Your task to perform on an android device: turn on javascript in the chrome app Image 0: 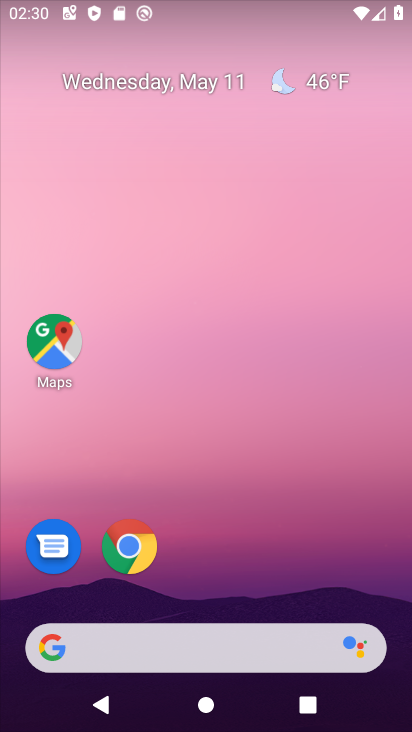
Step 0: drag from (199, 589) to (224, 68)
Your task to perform on an android device: turn on javascript in the chrome app Image 1: 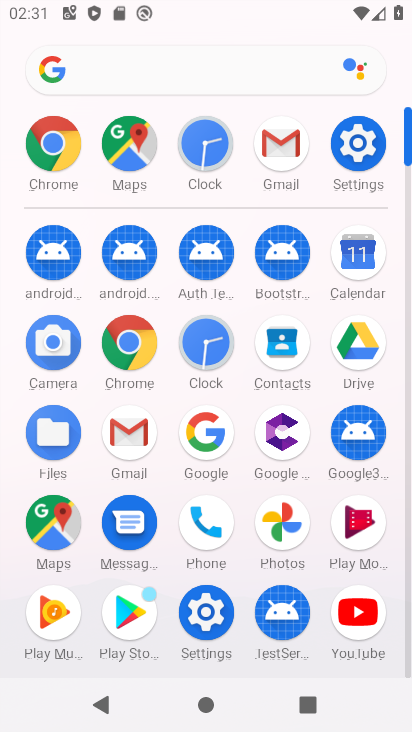
Step 1: click (354, 131)
Your task to perform on an android device: turn on javascript in the chrome app Image 2: 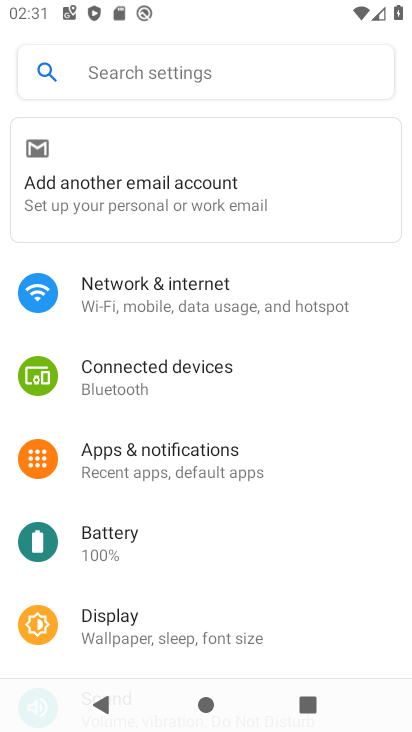
Step 2: drag from (217, 575) to (302, 140)
Your task to perform on an android device: turn on javascript in the chrome app Image 3: 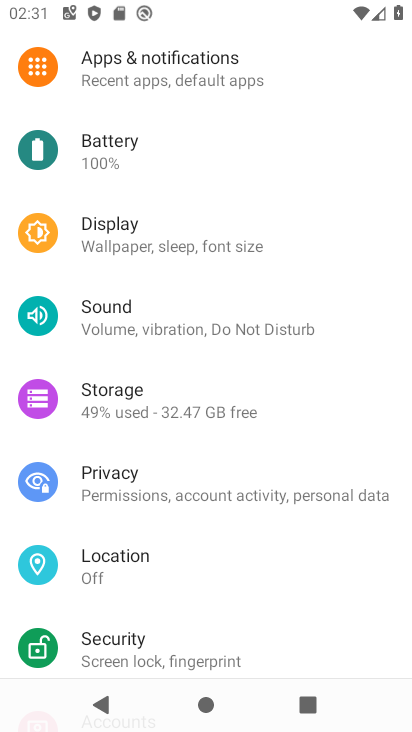
Step 3: press back button
Your task to perform on an android device: turn on javascript in the chrome app Image 4: 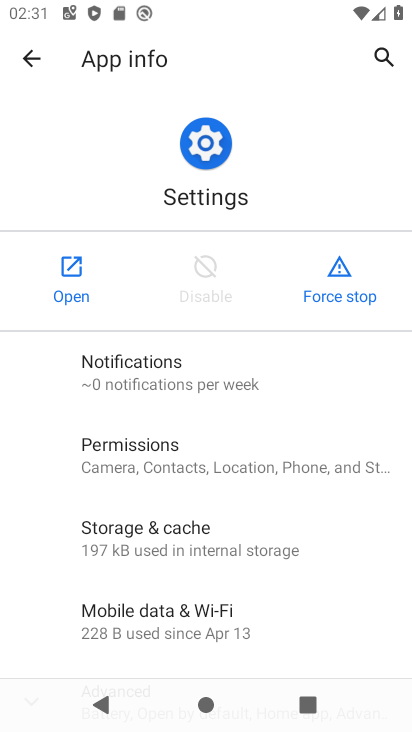
Step 4: press home button
Your task to perform on an android device: turn on javascript in the chrome app Image 5: 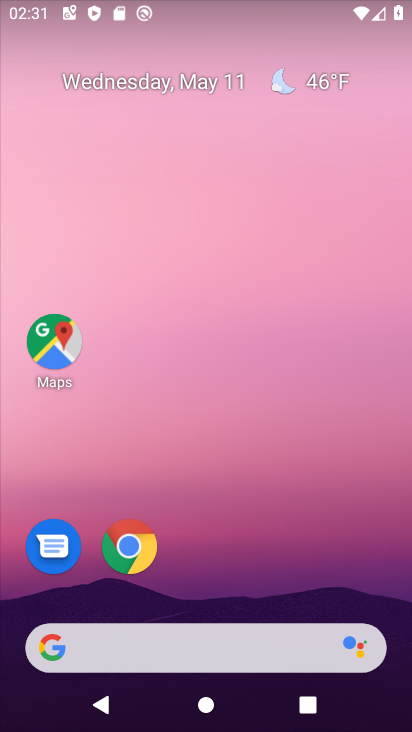
Step 5: drag from (170, 606) to (268, 61)
Your task to perform on an android device: turn on javascript in the chrome app Image 6: 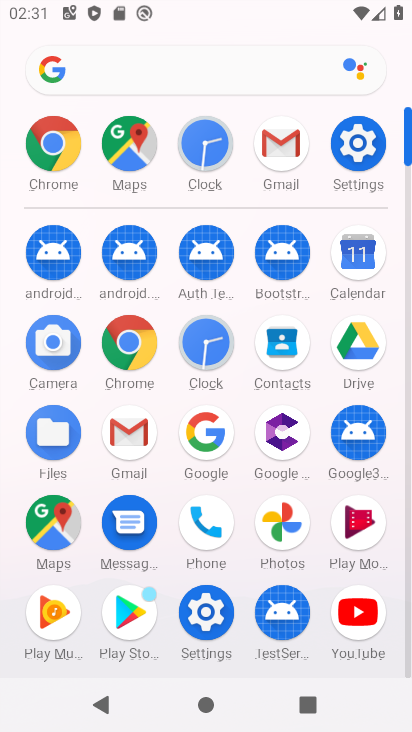
Step 6: click (122, 341)
Your task to perform on an android device: turn on javascript in the chrome app Image 7: 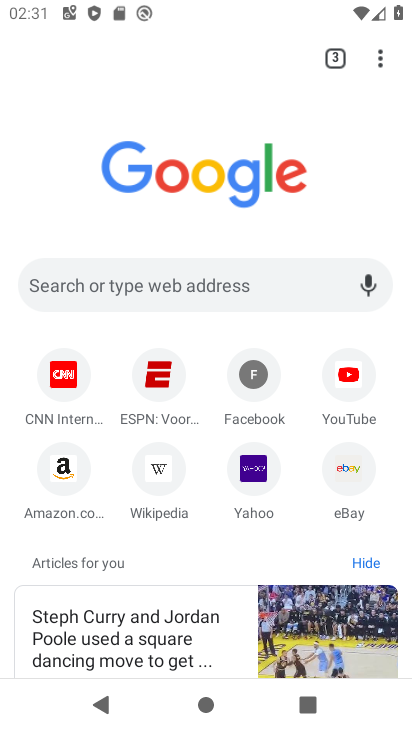
Step 7: drag from (384, 57) to (203, 495)
Your task to perform on an android device: turn on javascript in the chrome app Image 8: 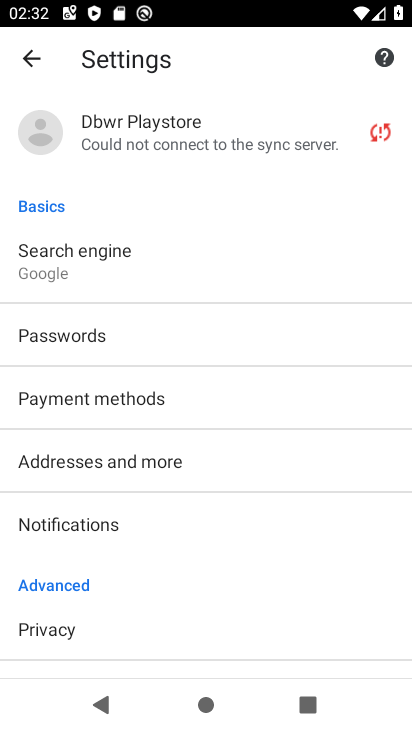
Step 8: drag from (222, 590) to (306, 56)
Your task to perform on an android device: turn on javascript in the chrome app Image 9: 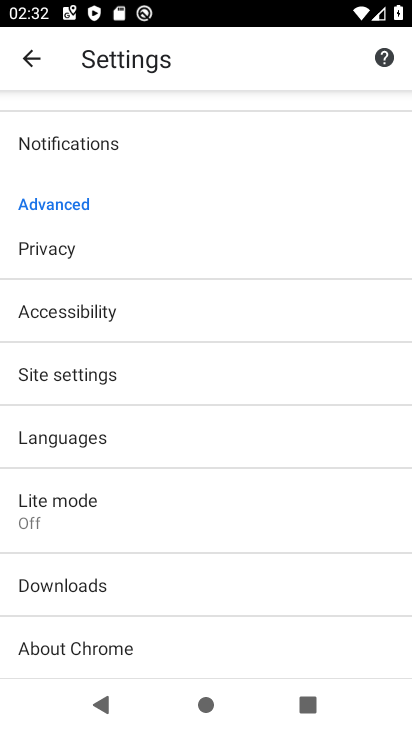
Step 9: click (95, 378)
Your task to perform on an android device: turn on javascript in the chrome app Image 10: 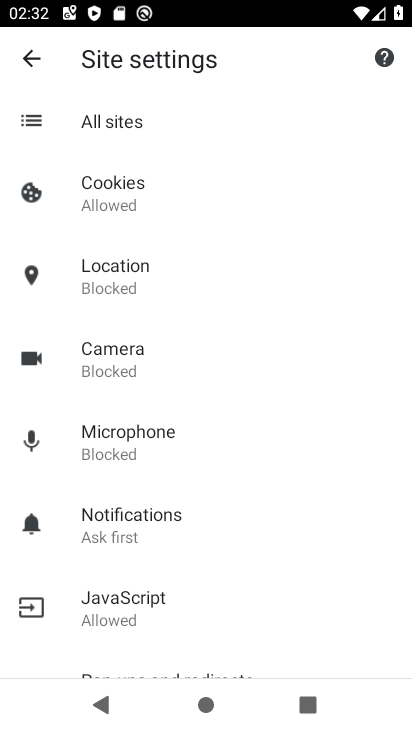
Step 10: drag from (242, 522) to (308, 156)
Your task to perform on an android device: turn on javascript in the chrome app Image 11: 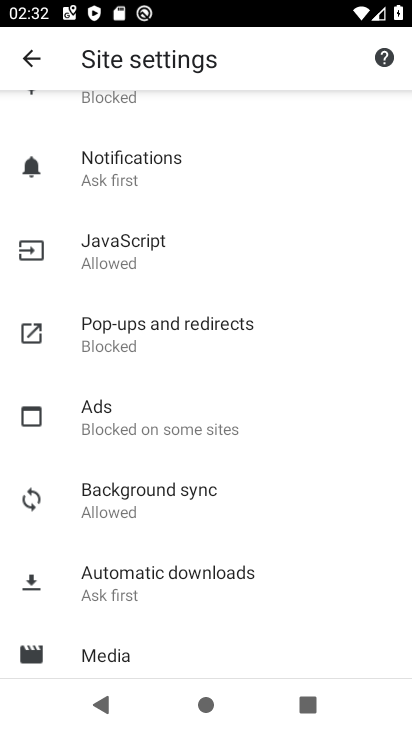
Step 11: click (170, 263)
Your task to perform on an android device: turn on javascript in the chrome app Image 12: 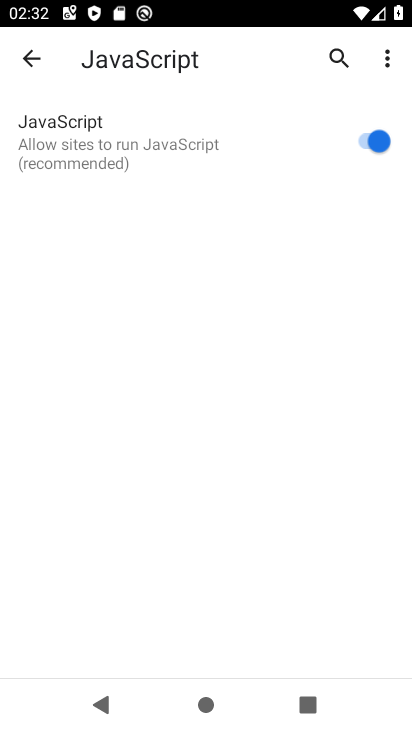
Step 12: task complete